Your task to perform on an android device: Go to network settings Image 0: 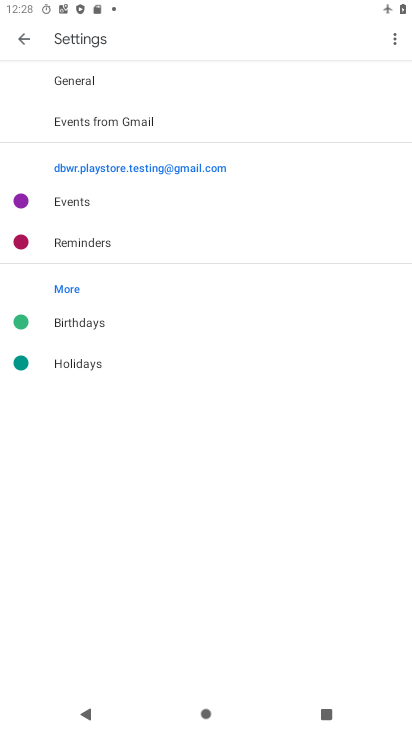
Step 0: press home button
Your task to perform on an android device: Go to network settings Image 1: 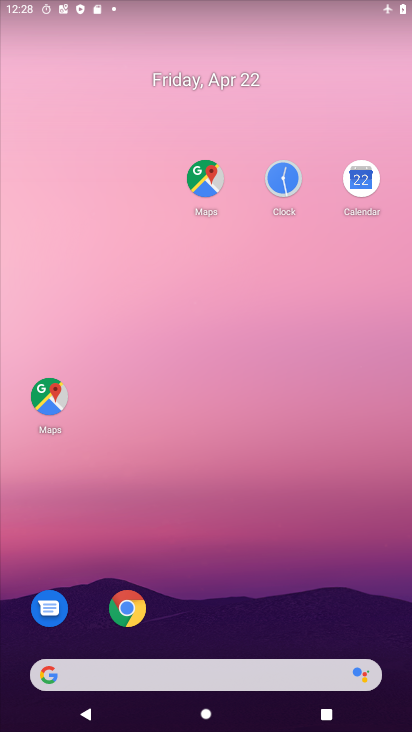
Step 1: drag from (253, 627) to (131, 131)
Your task to perform on an android device: Go to network settings Image 2: 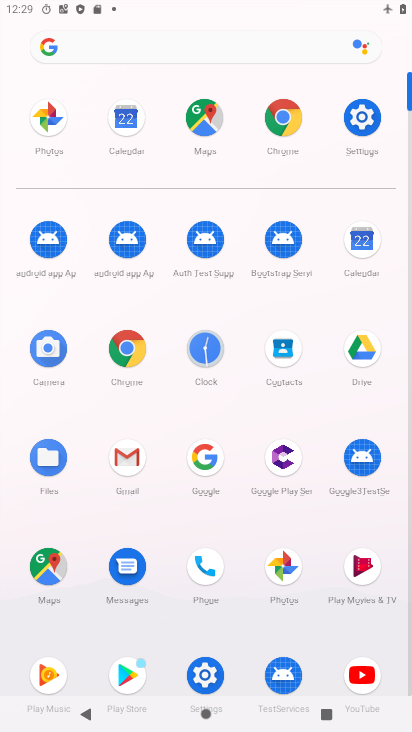
Step 2: click (356, 125)
Your task to perform on an android device: Go to network settings Image 3: 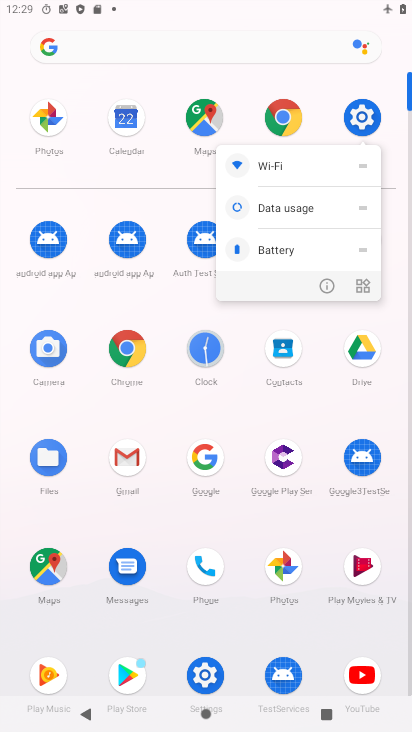
Step 3: click (362, 123)
Your task to perform on an android device: Go to network settings Image 4: 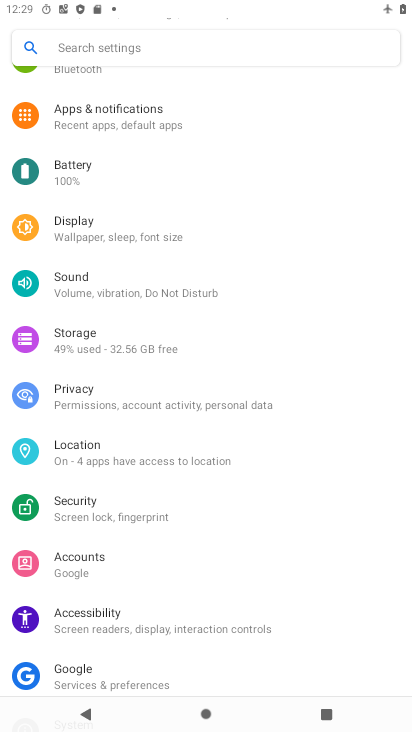
Step 4: drag from (90, 141) to (136, 498)
Your task to perform on an android device: Go to network settings Image 5: 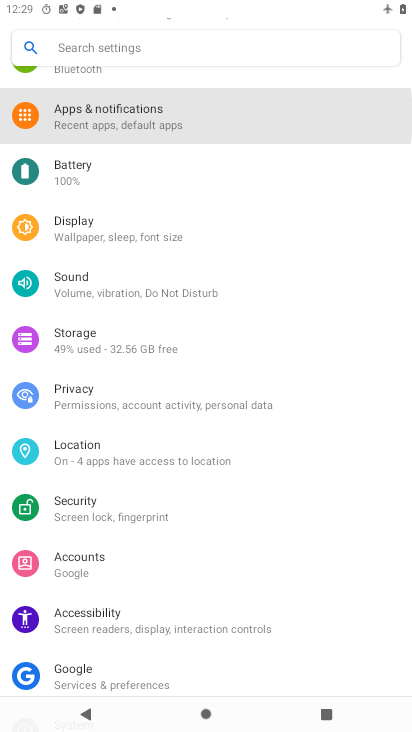
Step 5: drag from (108, 263) to (190, 543)
Your task to perform on an android device: Go to network settings Image 6: 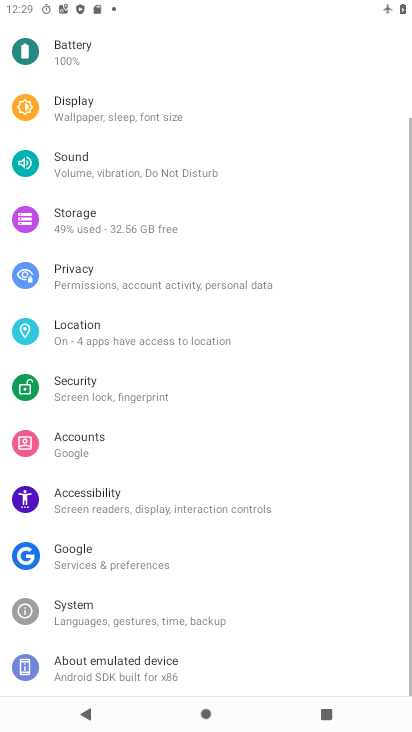
Step 6: drag from (180, 429) to (215, 596)
Your task to perform on an android device: Go to network settings Image 7: 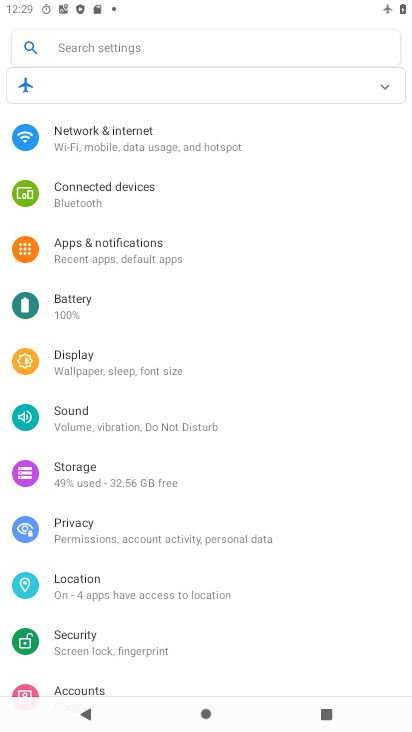
Step 7: click (105, 136)
Your task to perform on an android device: Go to network settings Image 8: 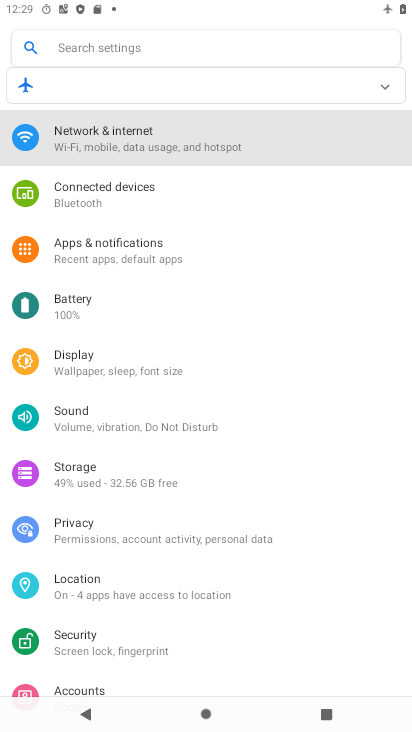
Step 8: click (106, 137)
Your task to perform on an android device: Go to network settings Image 9: 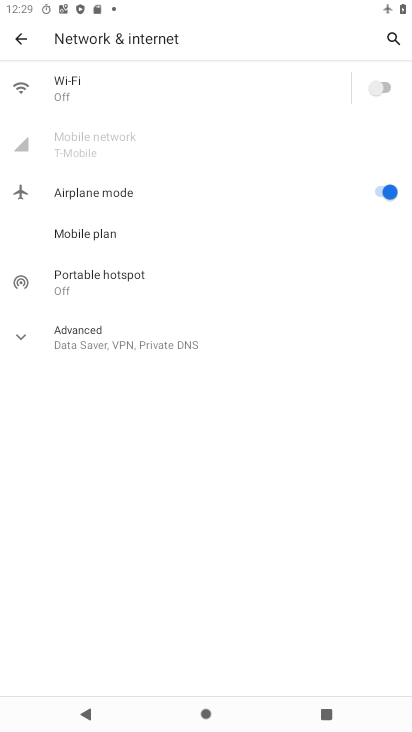
Step 9: click (376, 82)
Your task to perform on an android device: Go to network settings Image 10: 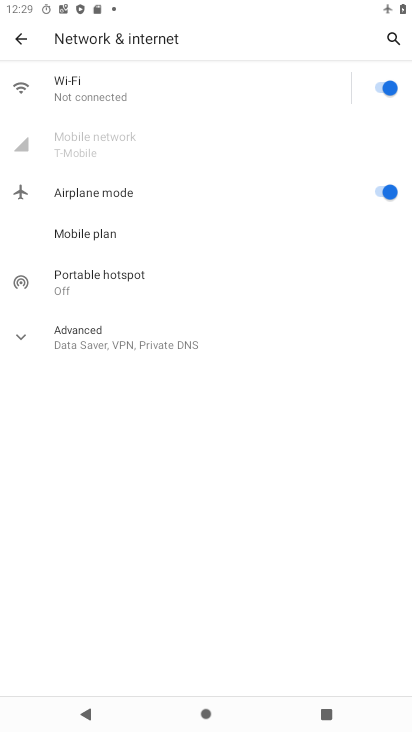
Step 10: click (379, 82)
Your task to perform on an android device: Go to network settings Image 11: 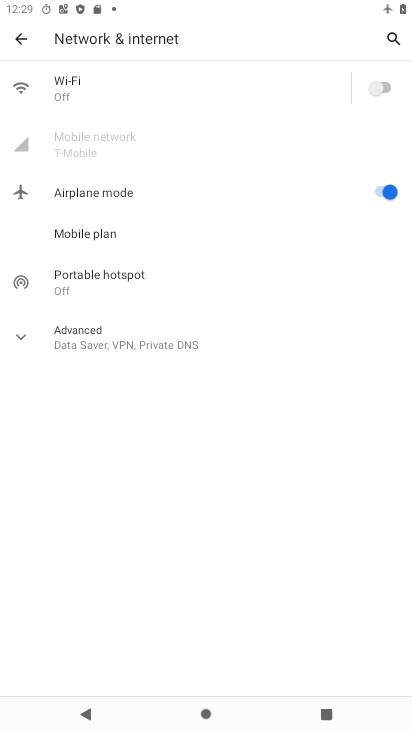
Step 11: task complete